Your task to perform on an android device: toggle pop-ups in chrome Image 0: 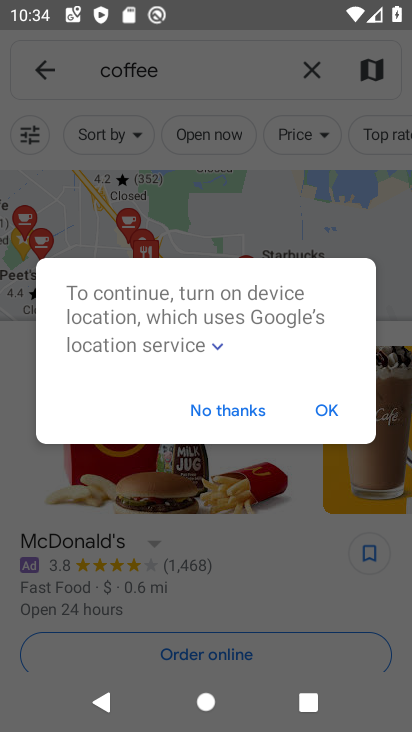
Step 0: press home button
Your task to perform on an android device: toggle pop-ups in chrome Image 1: 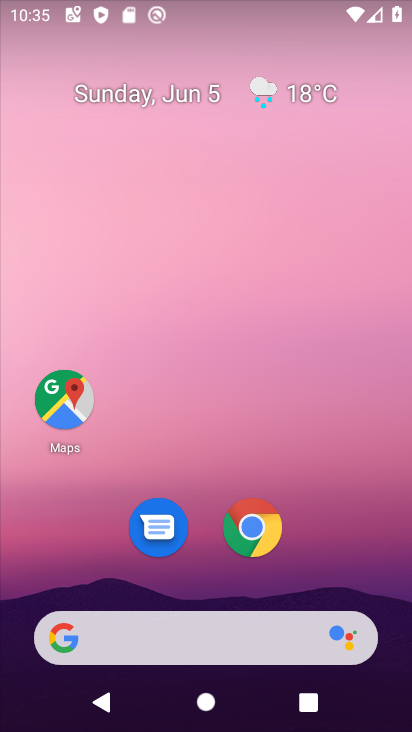
Step 1: click (262, 524)
Your task to perform on an android device: toggle pop-ups in chrome Image 2: 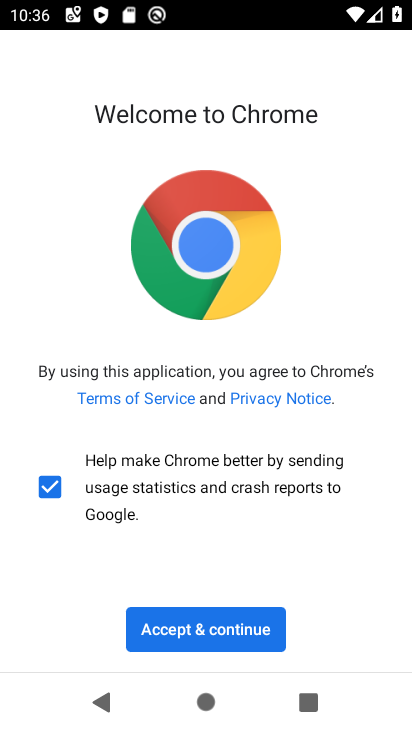
Step 2: click (224, 636)
Your task to perform on an android device: toggle pop-ups in chrome Image 3: 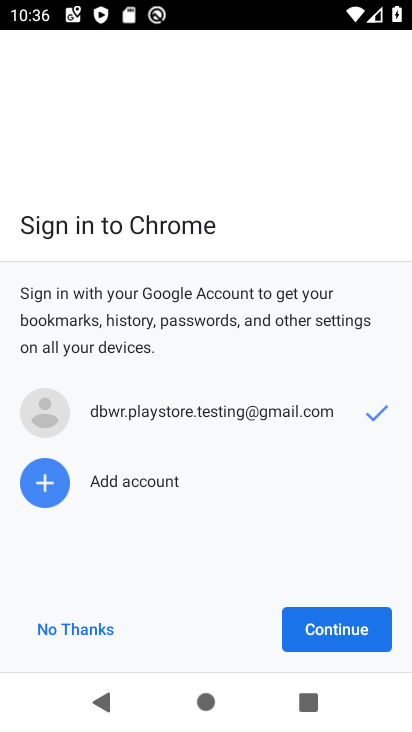
Step 3: click (354, 605)
Your task to perform on an android device: toggle pop-ups in chrome Image 4: 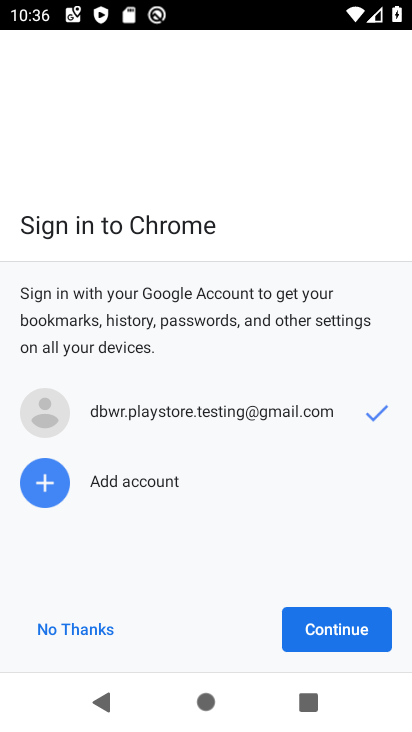
Step 4: click (340, 621)
Your task to perform on an android device: toggle pop-ups in chrome Image 5: 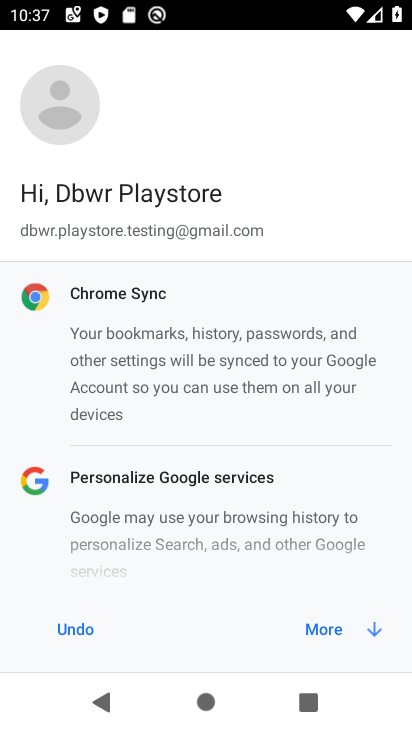
Step 5: click (334, 629)
Your task to perform on an android device: toggle pop-ups in chrome Image 6: 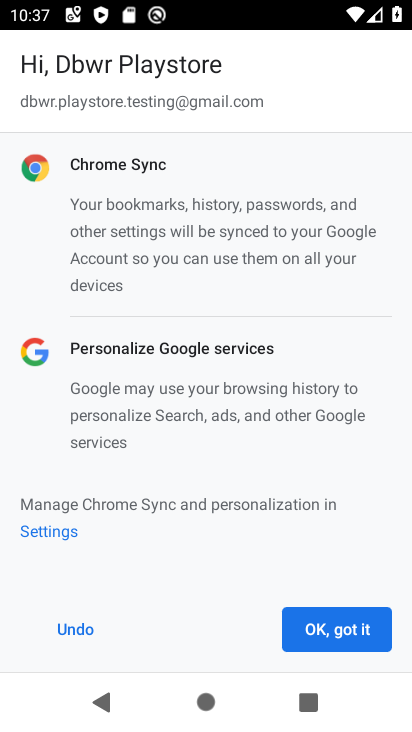
Step 6: click (350, 632)
Your task to perform on an android device: toggle pop-ups in chrome Image 7: 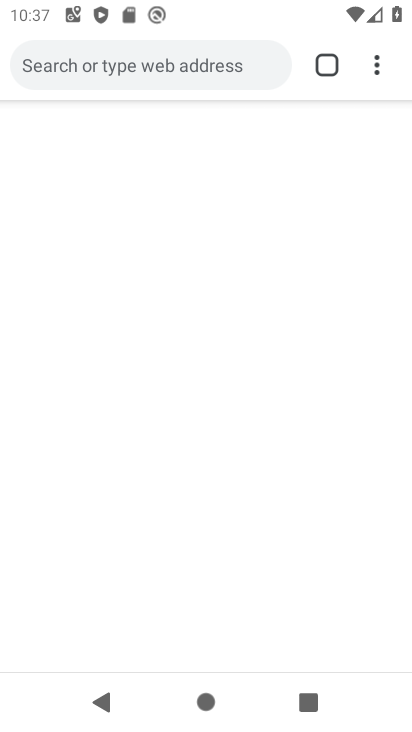
Step 7: click (380, 64)
Your task to perform on an android device: toggle pop-ups in chrome Image 8: 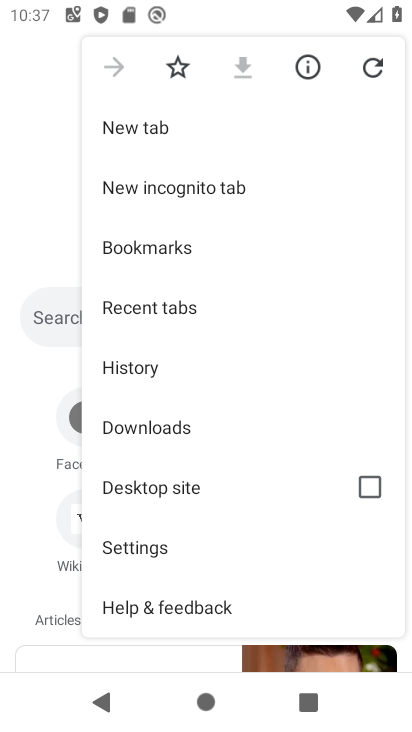
Step 8: click (215, 556)
Your task to perform on an android device: toggle pop-ups in chrome Image 9: 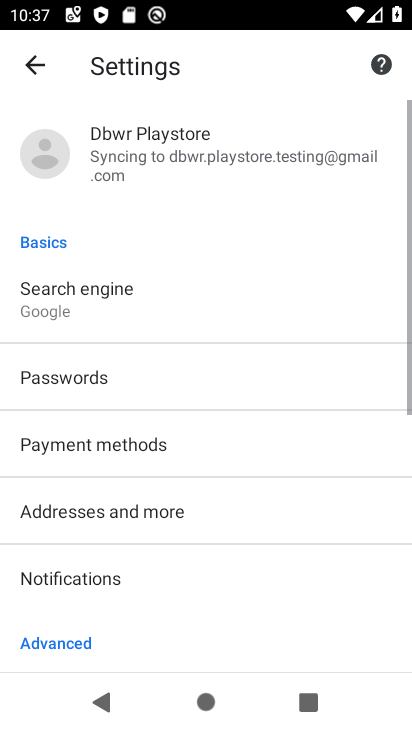
Step 9: drag from (180, 557) to (241, 94)
Your task to perform on an android device: toggle pop-ups in chrome Image 10: 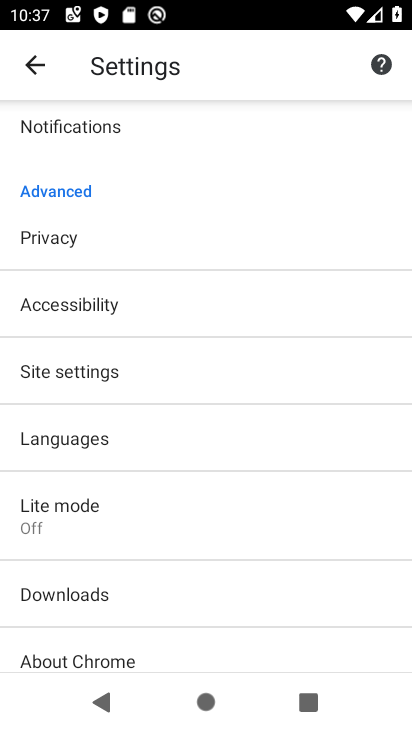
Step 10: click (154, 370)
Your task to perform on an android device: toggle pop-ups in chrome Image 11: 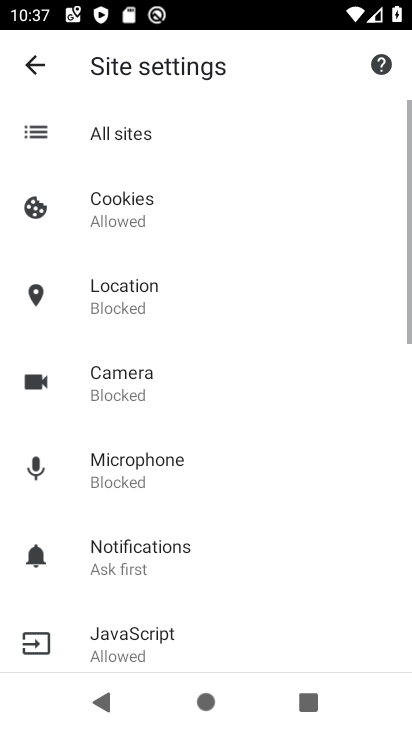
Step 11: drag from (213, 554) to (215, 158)
Your task to perform on an android device: toggle pop-ups in chrome Image 12: 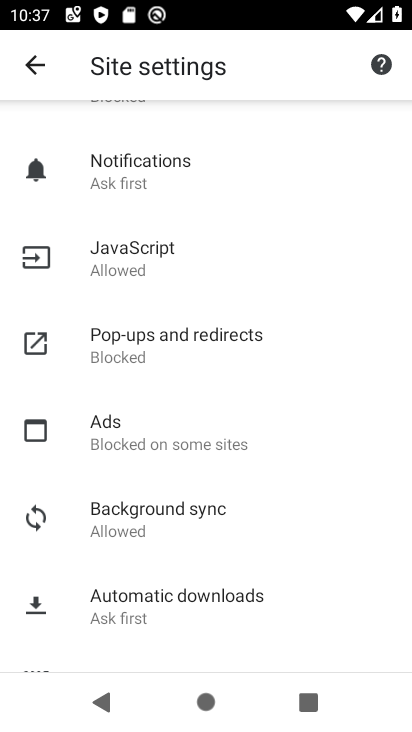
Step 12: click (162, 362)
Your task to perform on an android device: toggle pop-ups in chrome Image 13: 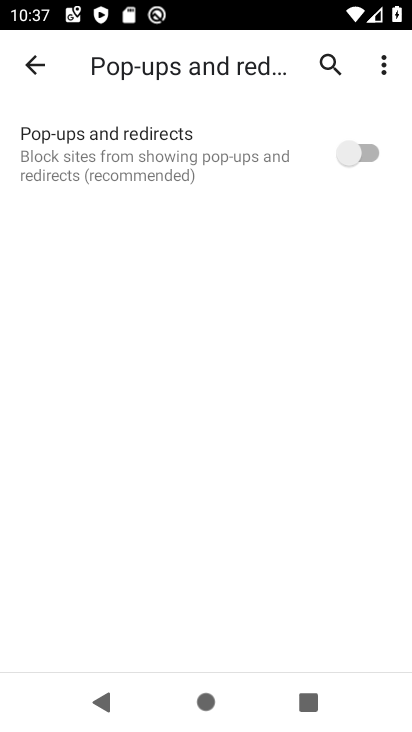
Step 13: click (365, 152)
Your task to perform on an android device: toggle pop-ups in chrome Image 14: 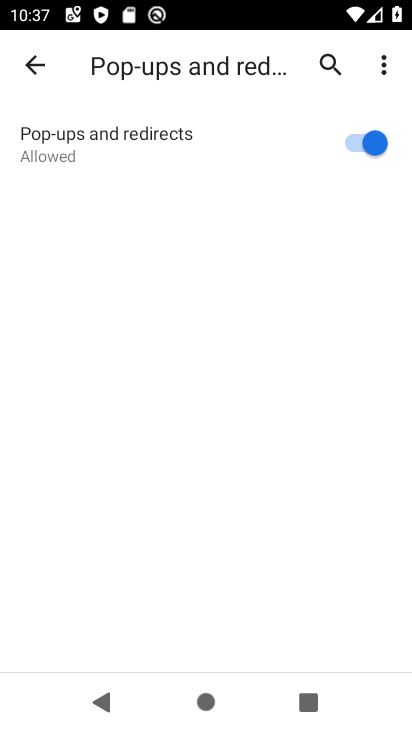
Step 14: task complete